Your task to perform on an android device: check battery use Image 0: 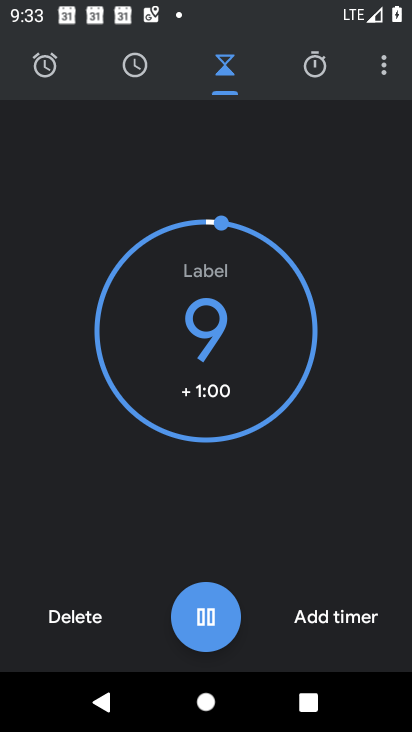
Step 0: press home button
Your task to perform on an android device: check battery use Image 1: 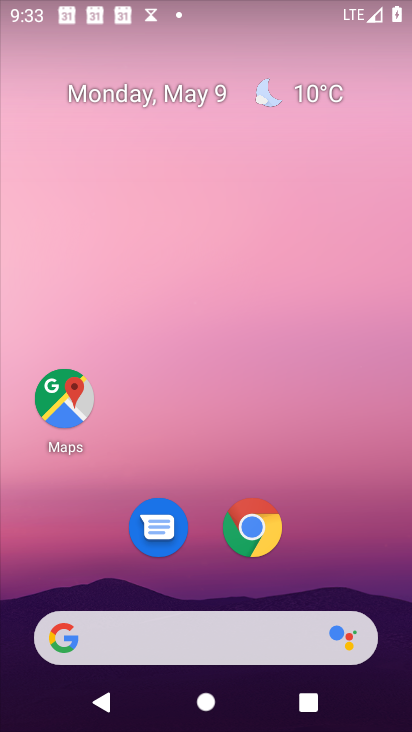
Step 1: drag from (234, 582) to (287, 14)
Your task to perform on an android device: check battery use Image 2: 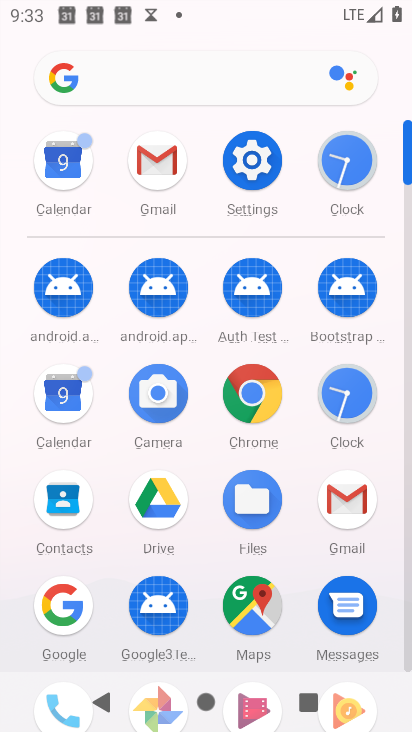
Step 2: click (251, 185)
Your task to perform on an android device: check battery use Image 3: 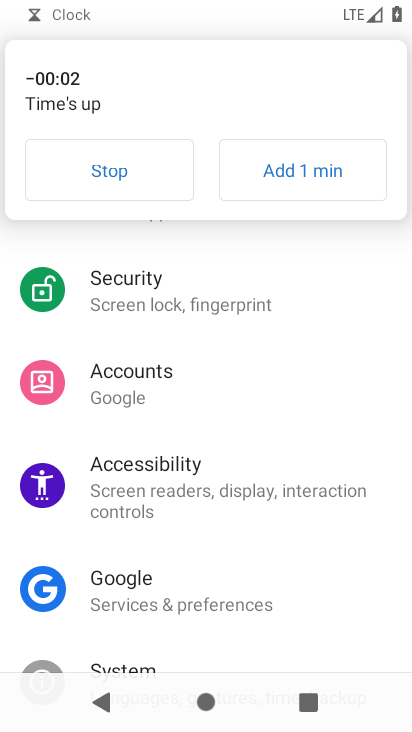
Step 3: click (144, 173)
Your task to perform on an android device: check battery use Image 4: 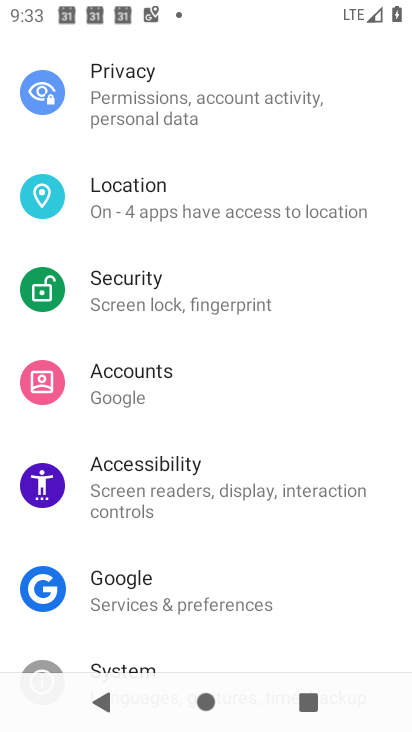
Step 4: drag from (148, 557) to (168, 712)
Your task to perform on an android device: check battery use Image 5: 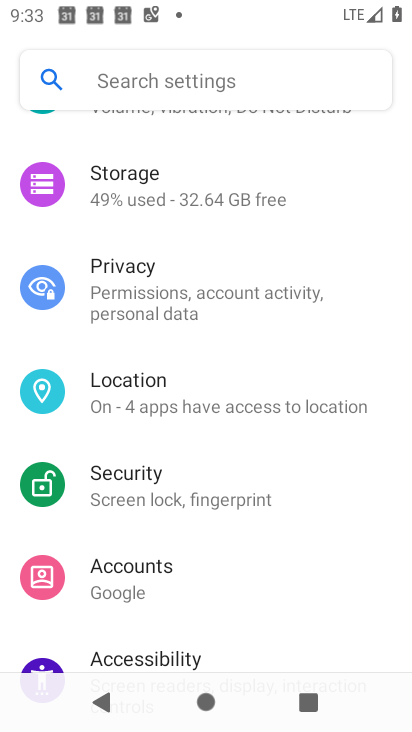
Step 5: drag from (264, 326) to (204, 588)
Your task to perform on an android device: check battery use Image 6: 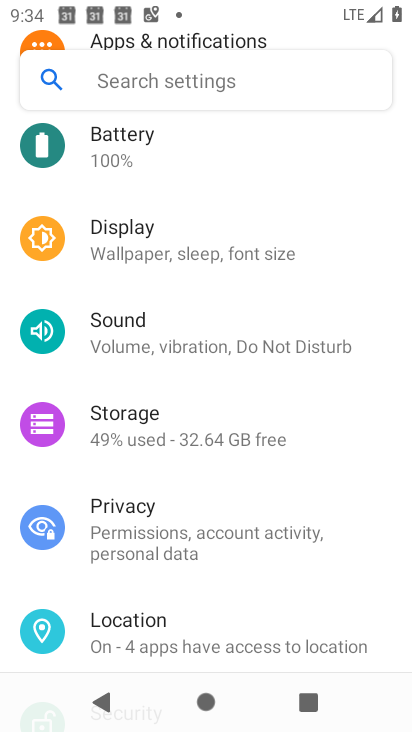
Step 6: drag from (211, 237) to (169, 539)
Your task to perform on an android device: check battery use Image 7: 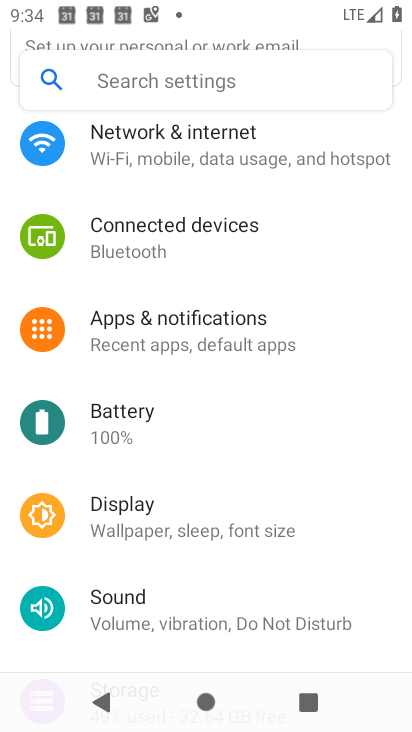
Step 7: click (135, 439)
Your task to perform on an android device: check battery use Image 8: 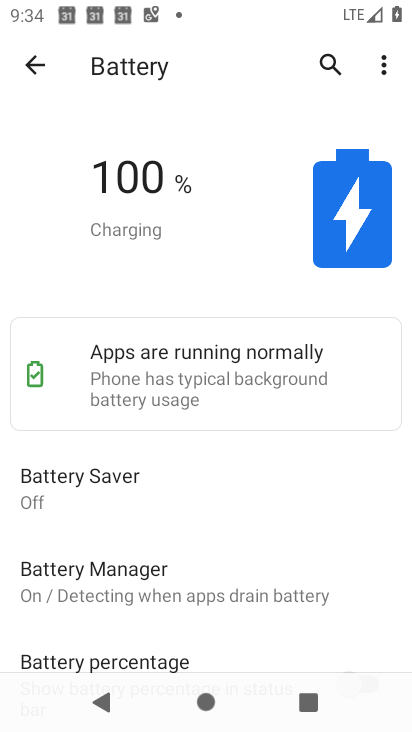
Step 8: drag from (283, 494) to (299, 304)
Your task to perform on an android device: check battery use Image 9: 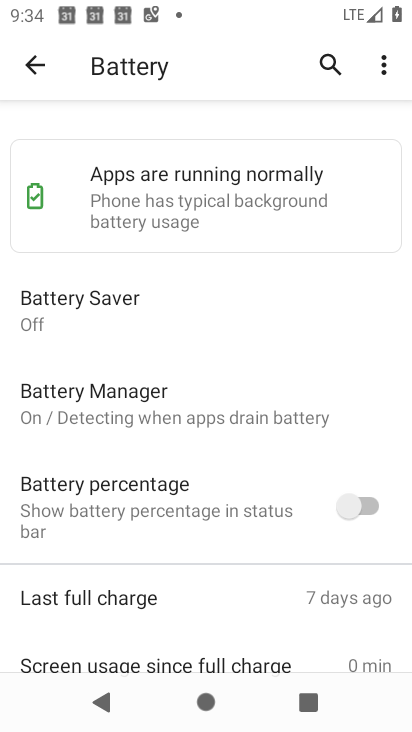
Step 9: click (388, 60)
Your task to perform on an android device: check battery use Image 10: 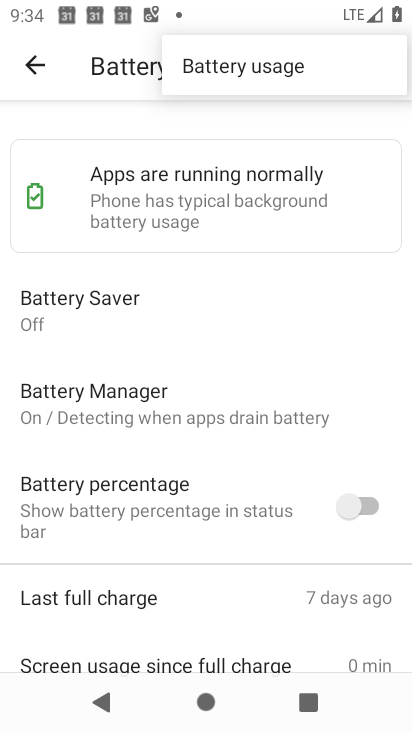
Step 10: click (255, 67)
Your task to perform on an android device: check battery use Image 11: 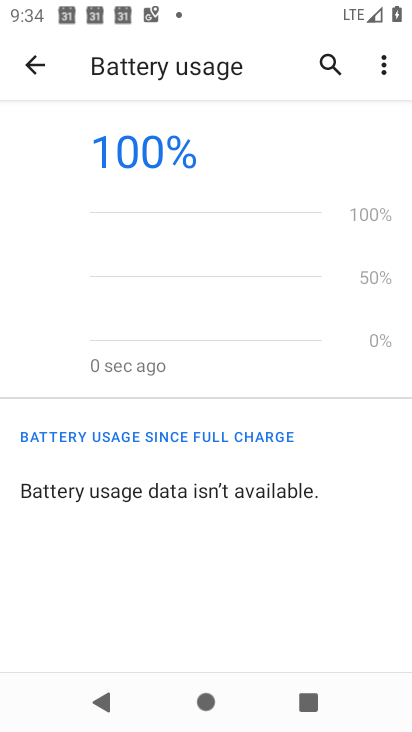
Step 11: task complete